Your task to perform on an android device: Set the phone to "Do not disturb". Image 0: 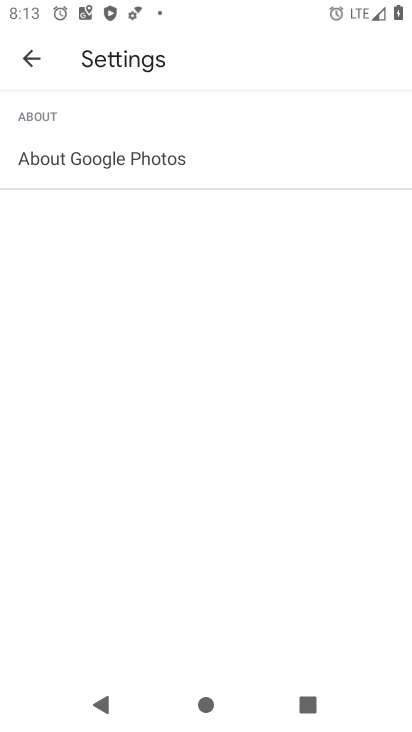
Step 0: press home button
Your task to perform on an android device: Set the phone to "Do not disturb". Image 1: 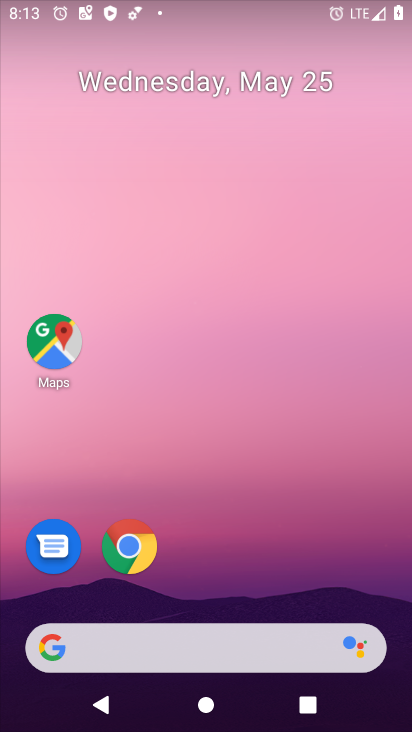
Step 1: drag from (379, 566) to (365, 169)
Your task to perform on an android device: Set the phone to "Do not disturb". Image 2: 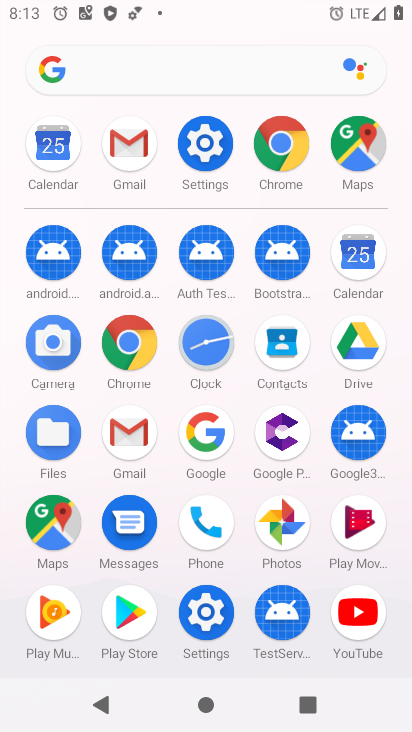
Step 2: click (222, 618)
Your task to perform on an android device: Set the phone to "Do not disturb". Image 3: 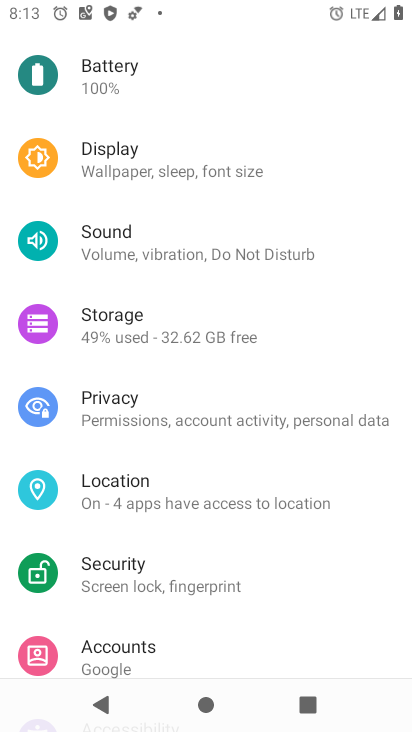
Step 3: drag from (343, 215) to (347, 304)
Your task to perform on an android device: Set the phone to "Do not disturb". Image 4: 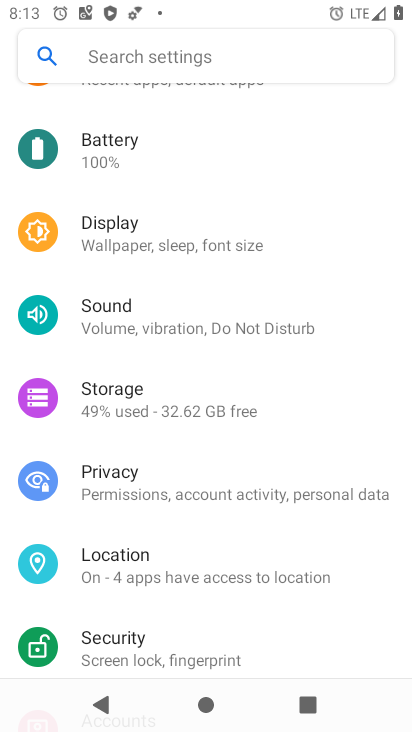
Step 4: drag from (352, 205) to (353, 285)
Your task to perform on an android device: Set the phone to "Do not disturb". Image 5: 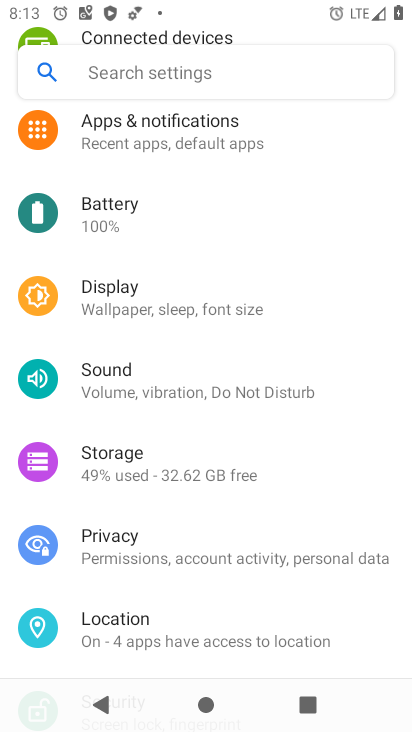
Step 5: drag from (350, 177) to (349, 274)
Your task to perform on an android device: Set the phone to "Do not disturb". Image 6: 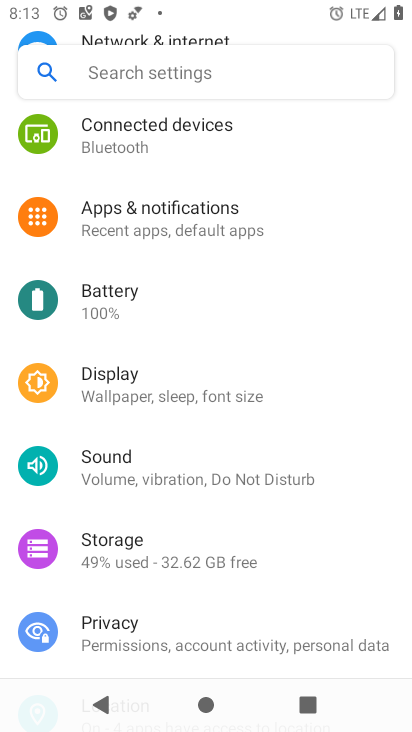
Step 6: drag from (351, 192) to (358, 344)
Your task to perform on an android device: Set the phone to "Do not disturb". Image 7: 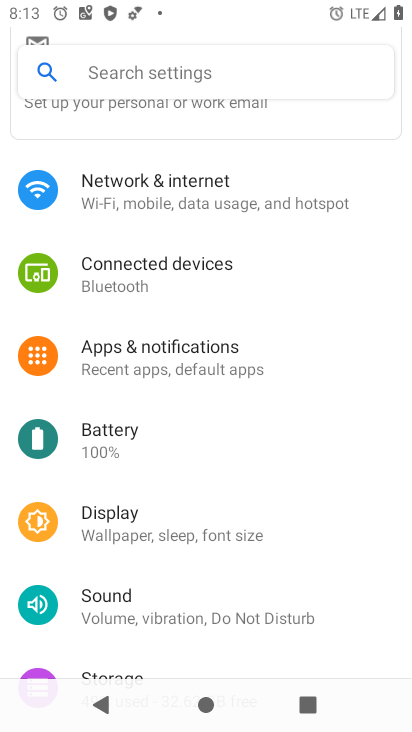
Step 7: drag from (372, 182) to (373, 318)
Your task to perform on an android device: Set the phone to "Do not disturb". Image 8: 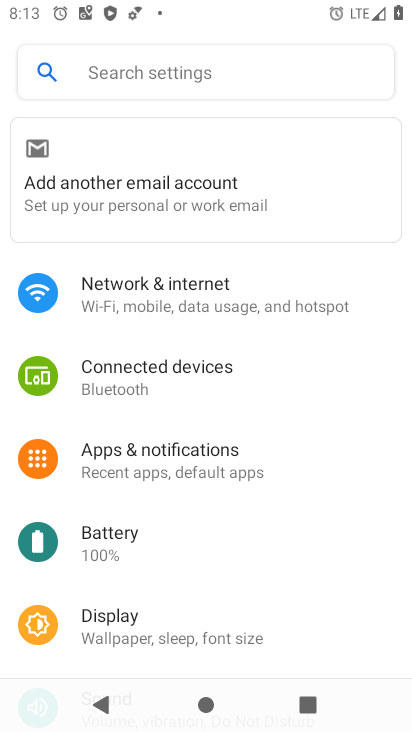
Step 8: drag from (378, 211) to (379, 335)
Your task to perform on an android device: Set the phone to "Do not disturb". Image 9: 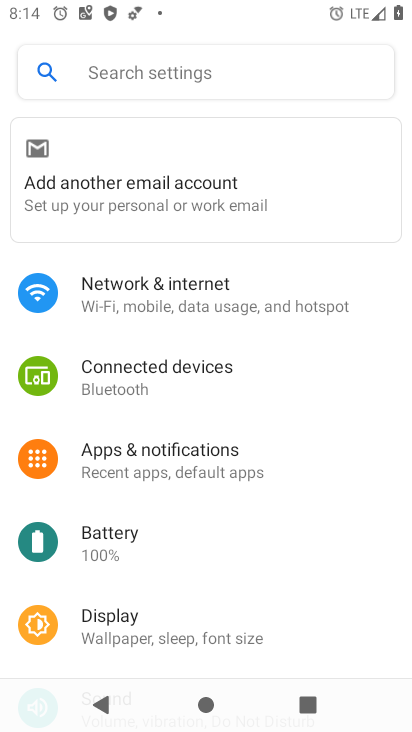
Step 9: drag from (348, 557) to (357, 449)
Your task to perform on an android device: Set the phone to "Do not disturb". Image 10: 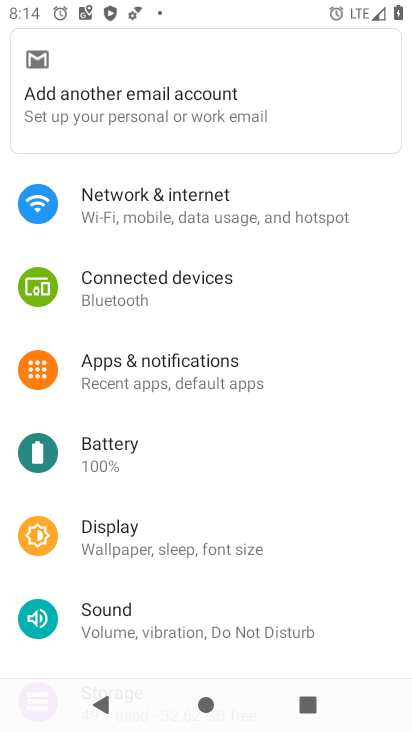
Step 10: drag from (363, 572) to (378, 460)
Your task to perform on an android device: Set the phone to "Do not disturb". Image 11: 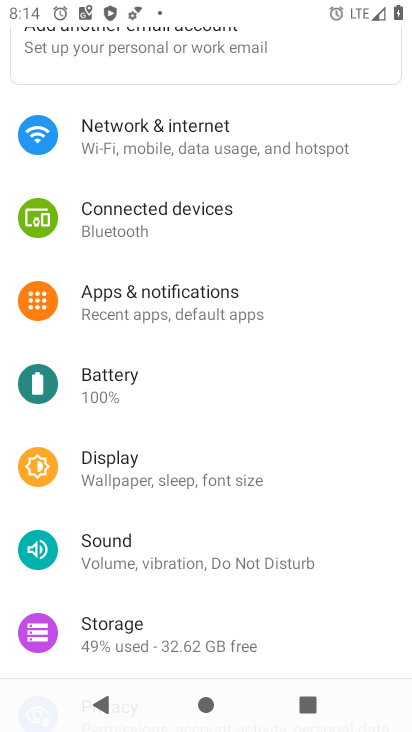
Step 11: drag from (367, 560) to (366, 475)
Your task to perform on an android device: Set the phone to "Do not disturb". Image 12: 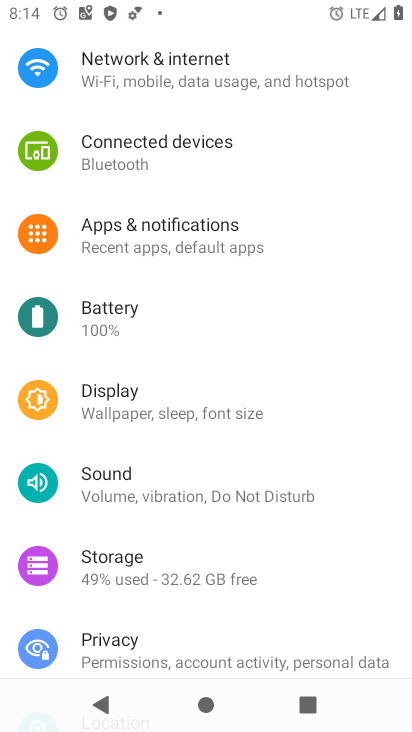
Step 12: drag from (360, 557) to (360, 466)
Your task to perform on an android device: Set the phone to "Do not disturb". Image 13: 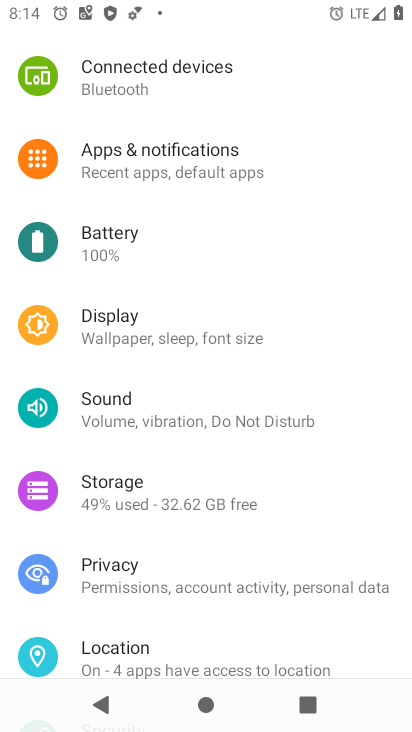
Step 13: click (279, 416)
Your task to perform on an android device: Set the phone to "Do not disturb". Image 14: 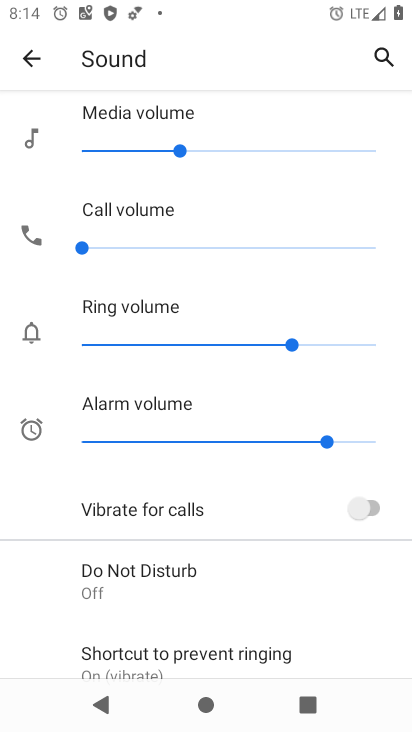
Step 14: click (159, 596)
Your task to perform on an android device: Set the phone to "Do not disturb". Image 15: 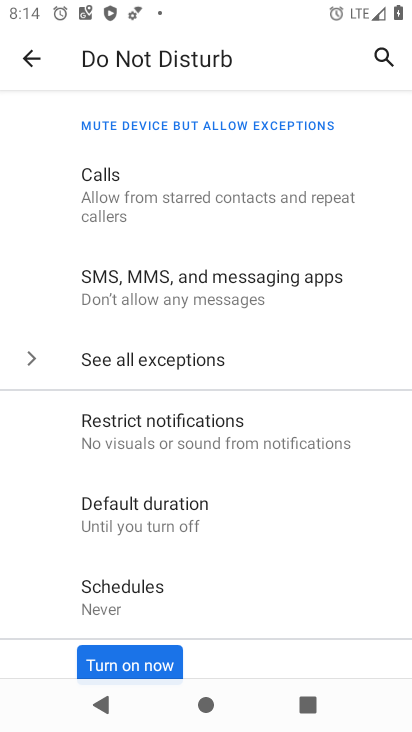
Step 15: drag from (248, 583) to (261, 475)
Your task to perform on an android device: Set the phone to "Do not disturb". Image 16: 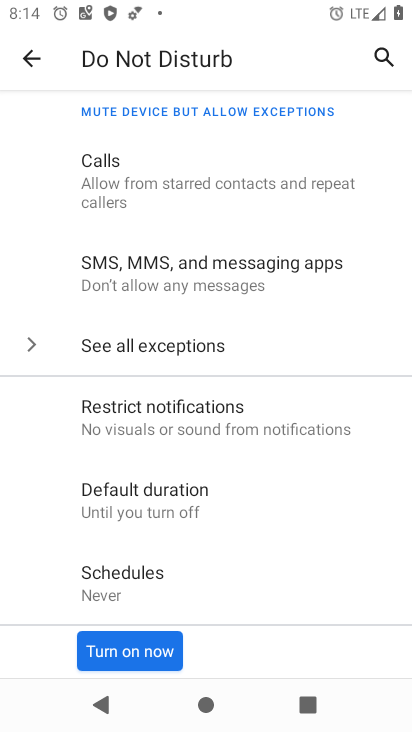
Step 16: click (165, 664)
Your task to perform on an android device: Set the phone to "Do not disturb". Image 17: 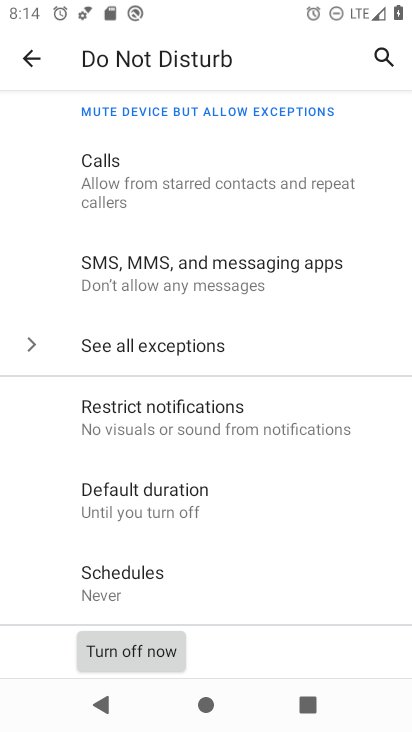
Step 17: task complete